Your task to perform on an android device: Go to Google maps Image 0: 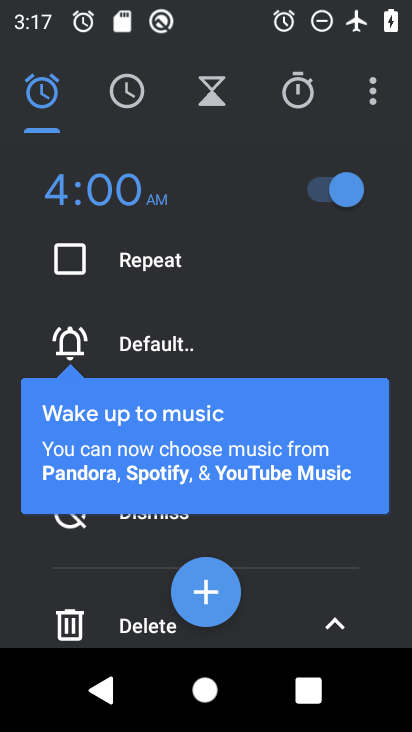
Step 0: press home button
Your task to perform on an android device: Go to Google maps Image 1: 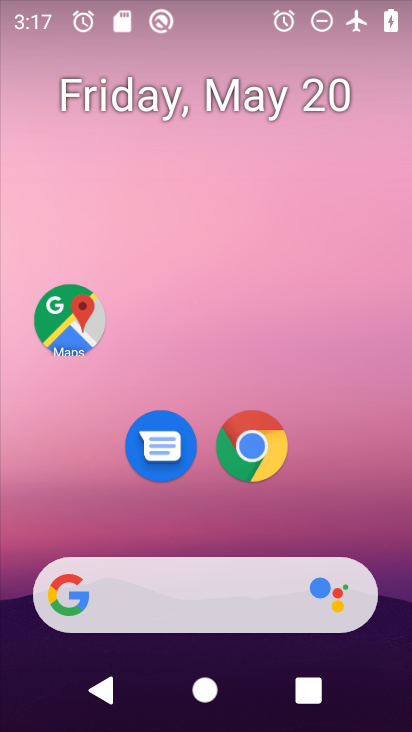
Step 1: click (65, 324)
Your task to perform on an android device: Go to Google maps Image 2: 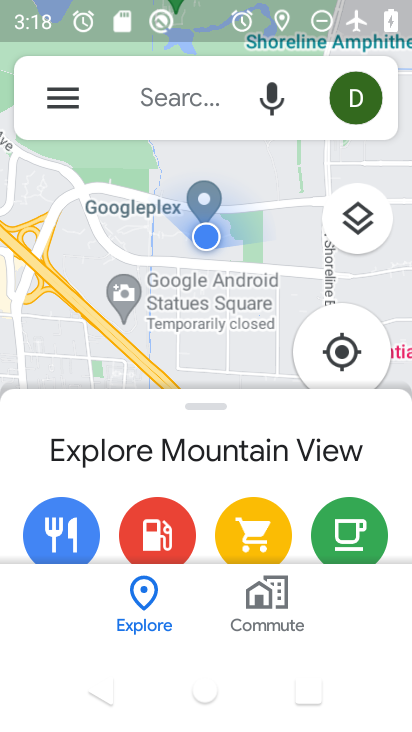
Step 2: task complete